Your task to perform on an android device: Show me the alarms in the clock app Image 0: 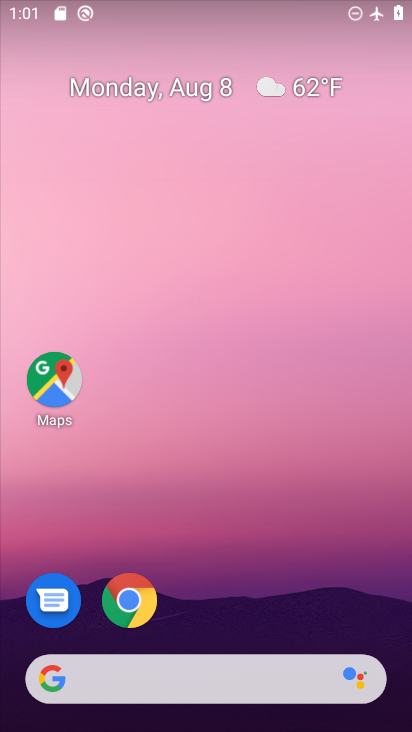
Step 0: drag from (217, 398) to (217, 201)
Your task to perform on an android device: Show me the alarms in the clock app Image 1: 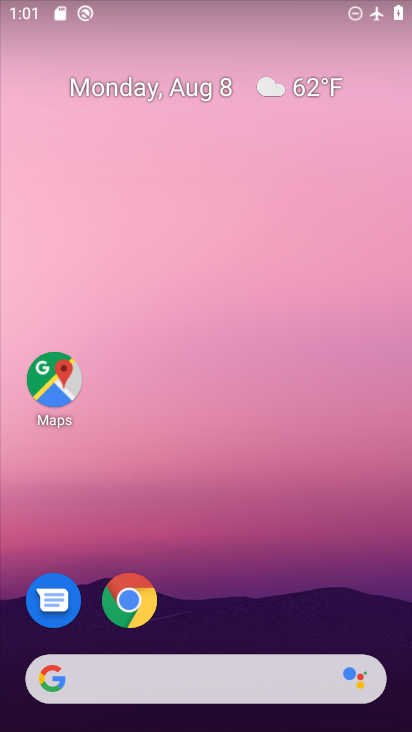
Step 1: drag from (220, 596) to (221, 112)
Your task to perform on an android device: Show me the alarms in the clock app Image 2: 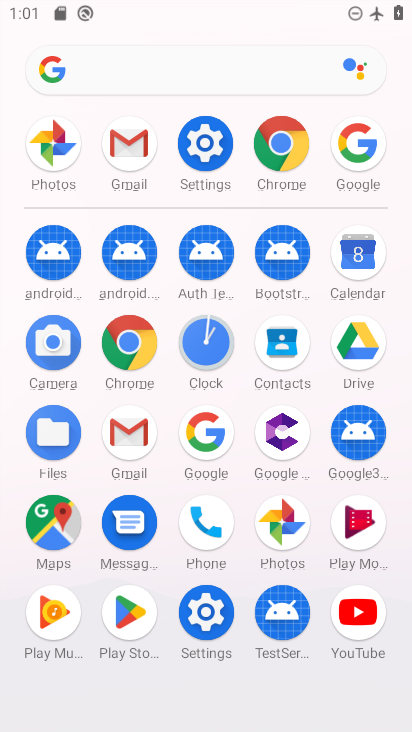
Step 2: click (217, 323)
Your task to perform on an android device: Show me the alarms in the clock app Image 3: 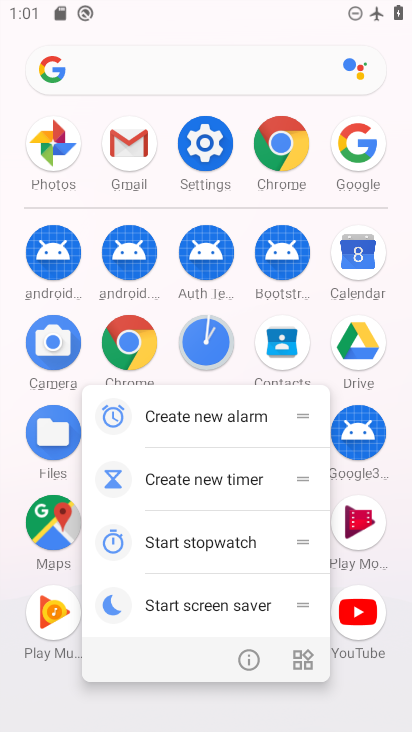
Step 3: click (200, 342)
Your task to perform on an android device: Show me the alarms in the clock app Image 4: 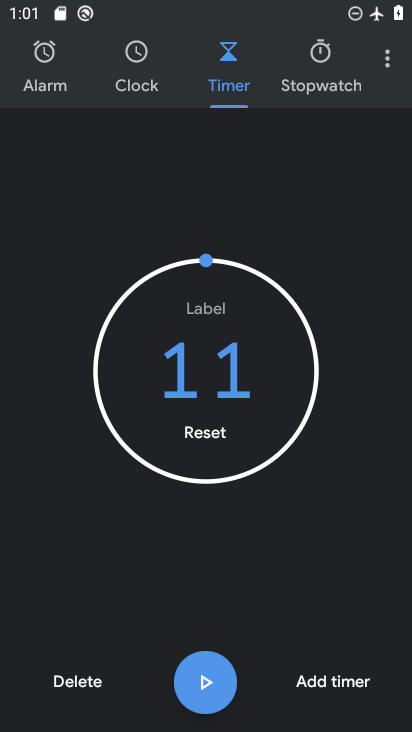
Step 4: click (378, 56)
Your task to perform on an android device: Show me the alarms in the clock app Image 5: 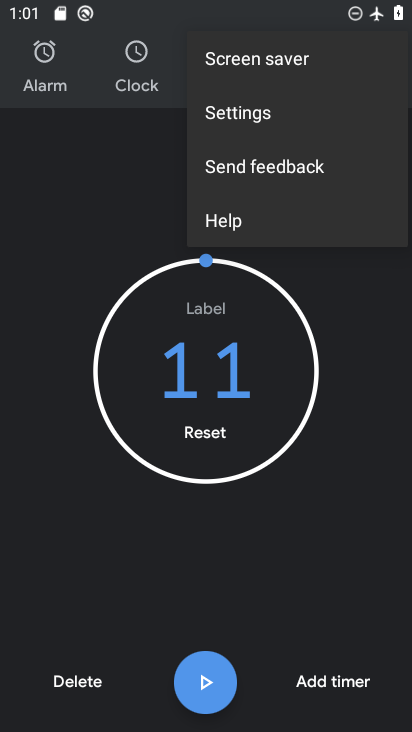
Step 5: click (34, 62)
Your task to perform on an android device: Show me the alarms in the clock app Image 6: 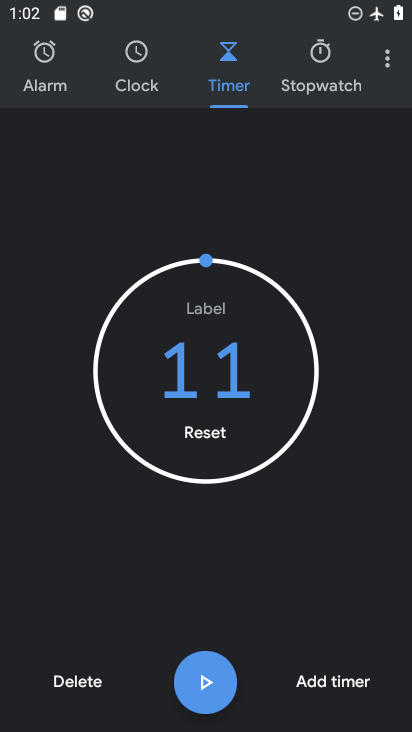
Step 6: click (34, 62)
Your task to perform on an android device: Show me the alarms in the clock app Image 7: 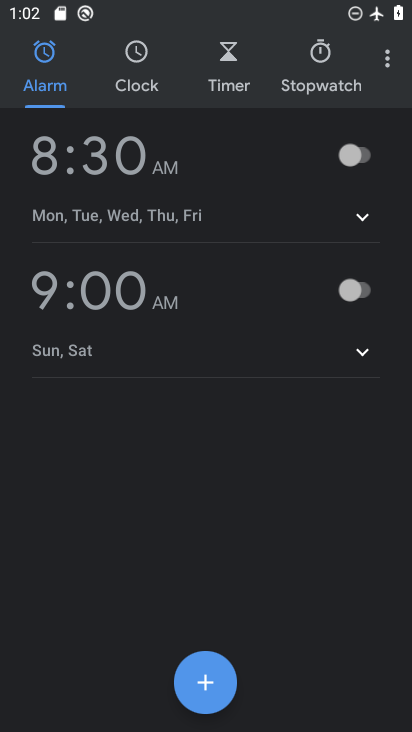
Step 7: task complete